Your task to perform on an android device: Show me the alarms in the clock app Image 0: 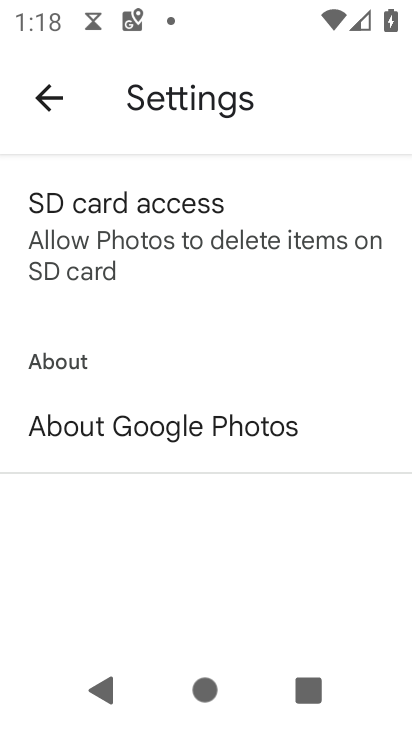
Step 0: press home button
Your task to perform on an android device: Show me the alarms in the clock app Image 1: 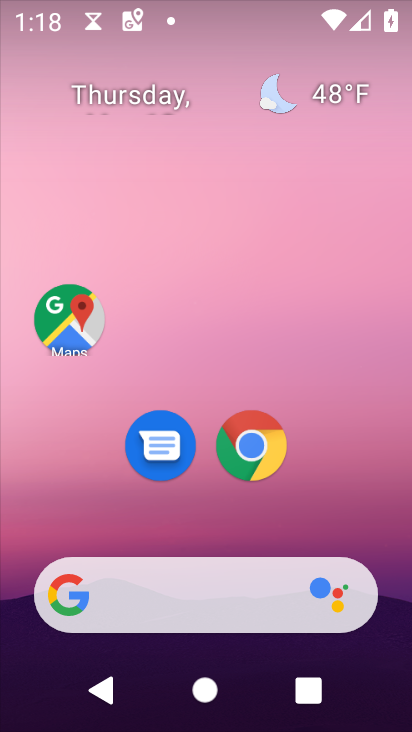
Step 1: drag from (266, 475) to (265, 73)
Your task to perform on an android device: Show me the alarms in the clock app Image 2: 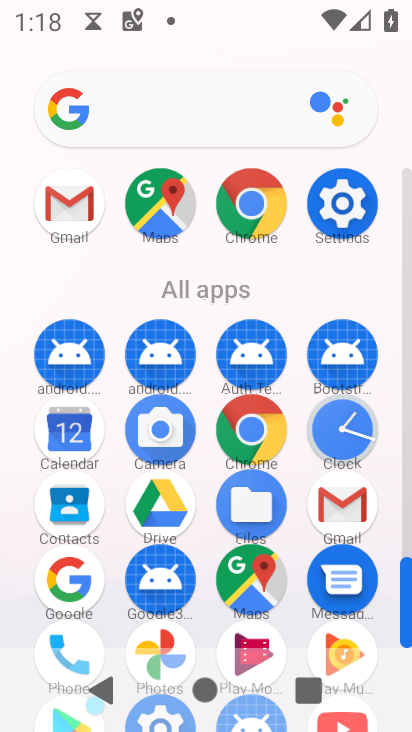
Step 2: click (338, 411)
Your task to perform on an android device: Show me the alarms in the clock app Image 3: 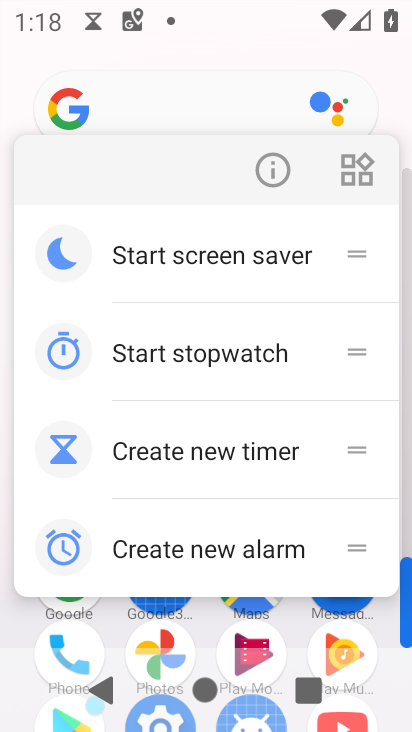
Step 3: click (382, 624)
Your task to perform on an android device: Show me the alarms in the clock app Image 4: 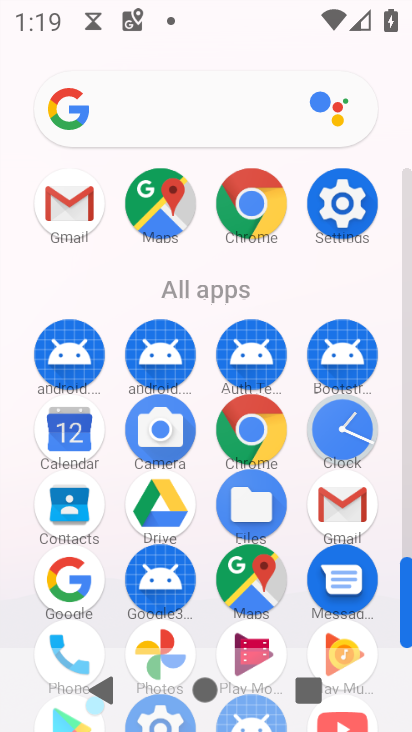
Step 4: click (342, 446)
Your task to perform on an android device: Show me the alarms in the clock app Image 5: 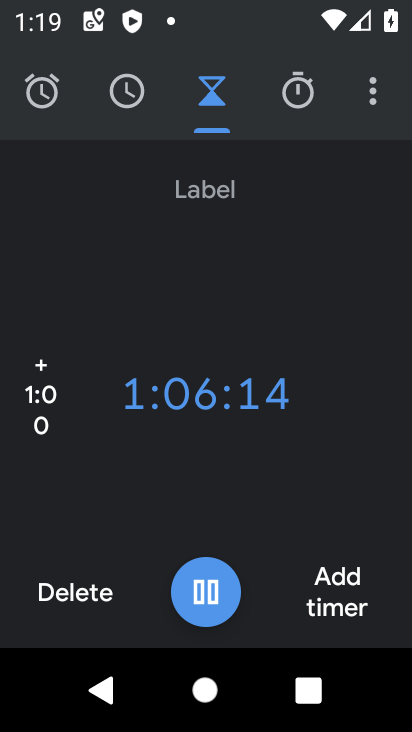
Step 5: click (35, 96)
Your task to perform on an android device: Show me the alarms in the clock app Image 6: 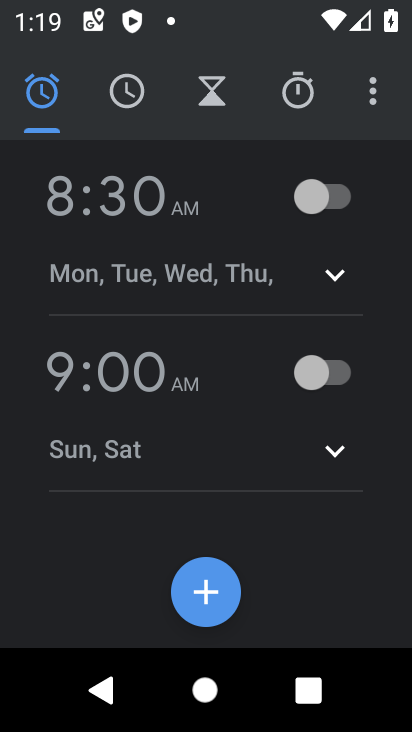
Step 6: task complete